Your task to perform on an android device: show emergency info Image 0: 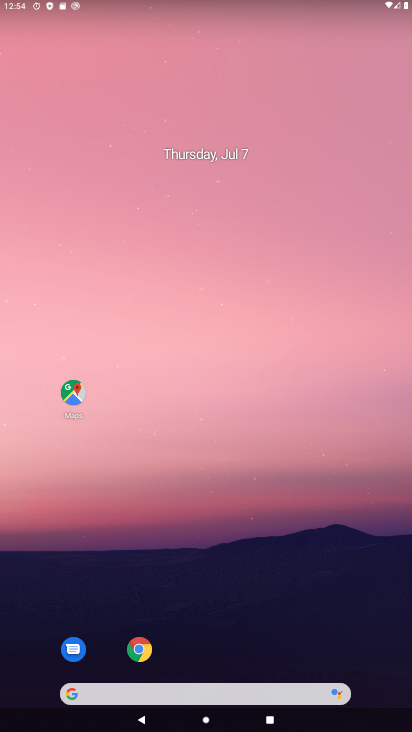
Step 0: drag from (202, 678) to (161, 277)
Your task to perform on an android device: show emergency info Image 1: 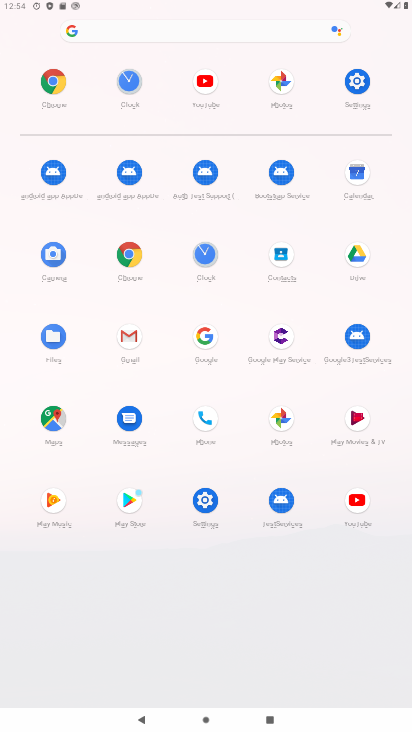
Step 1: click (205, 500)
Your task to perform on an android device: show emergency info Image 2: 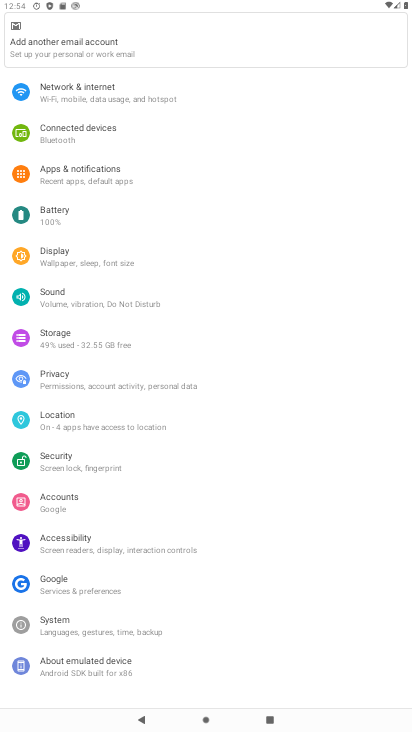
Step 2: click (53, 653)
Your task to perform on an android device: show emergency info Image 3: 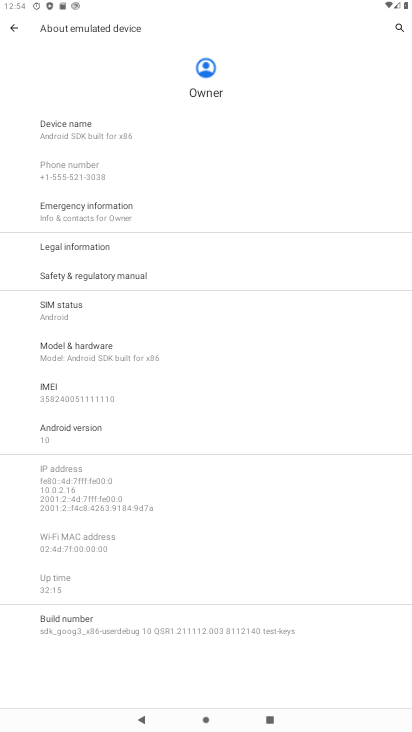
Step 3: click (88, 208)
Your task to perform on an android device: show emergency info Image 4: 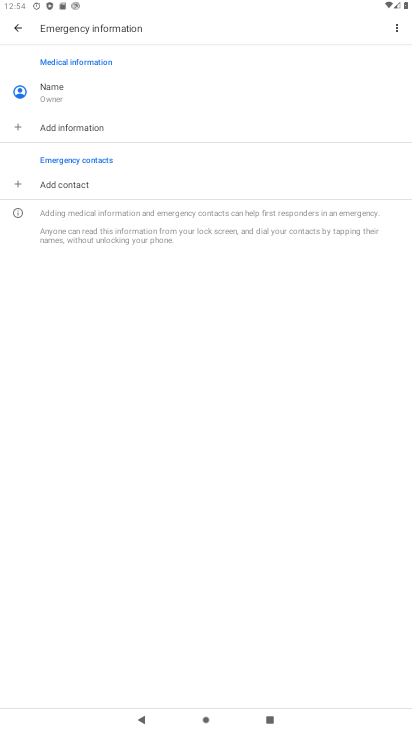
Step 4: task complete